Your task to perform on an android device: toggle show notifications on the lock screen Image 0: 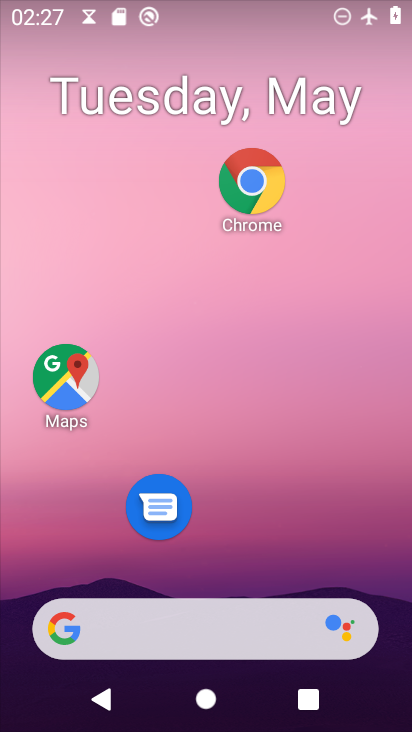
Step 0: drag from (296, 498) to (357, 141)
Your task to perform on an android device: toggle show notifications on the lock screen Image 1: 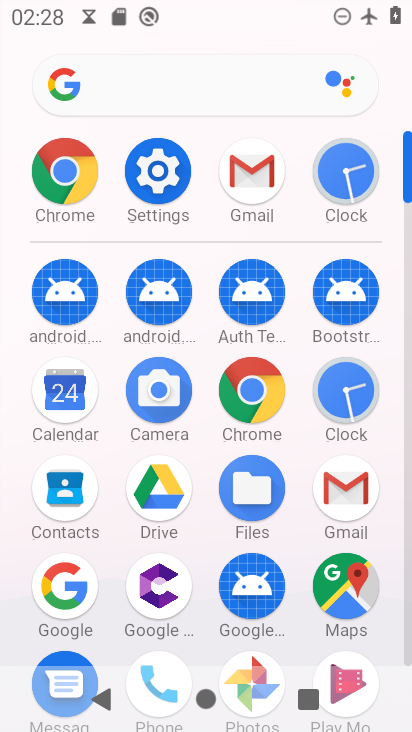
Step 1: click (248, 170)
Your task to perform on an android device: toggle show notifications on the lock screen Image 2: 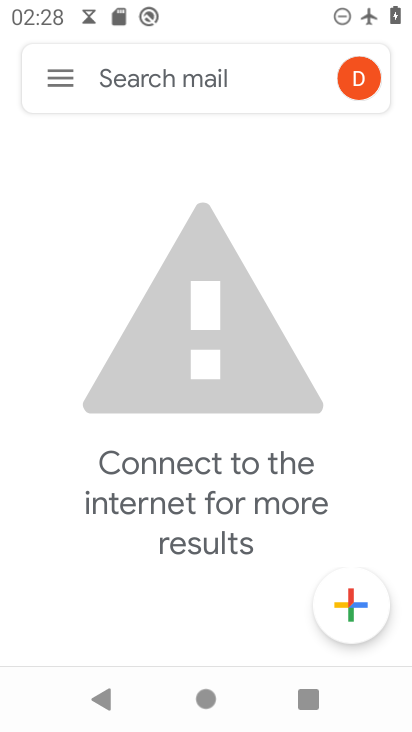
Step 2: press back button
Your task to perform on an android device: toggle show notifications on the lock screen Image 3: 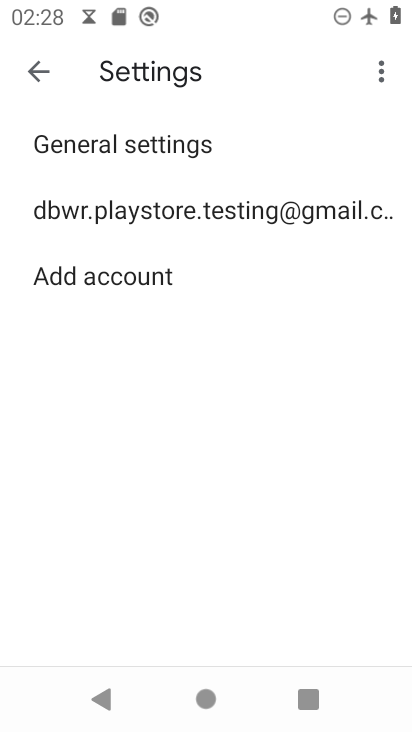
Step 3: press home button
Your task to perform on an android device: toggle show notifications on the lock screen Image 4: 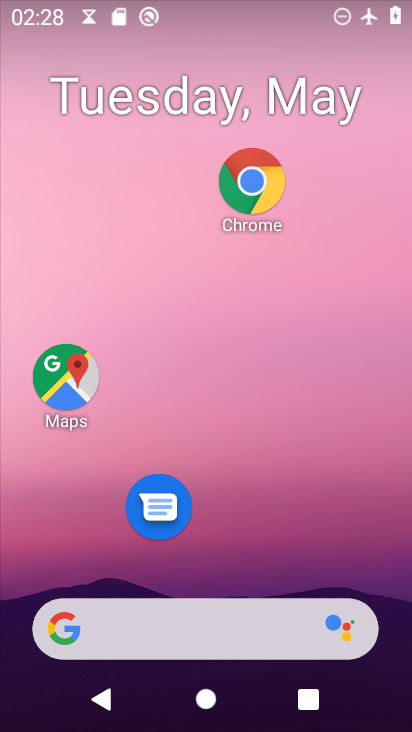
Step 4: drag from (281, 562) to (350, 214)
Your task to perform on an android device: toggle show notifications on the lock screen Image 5: 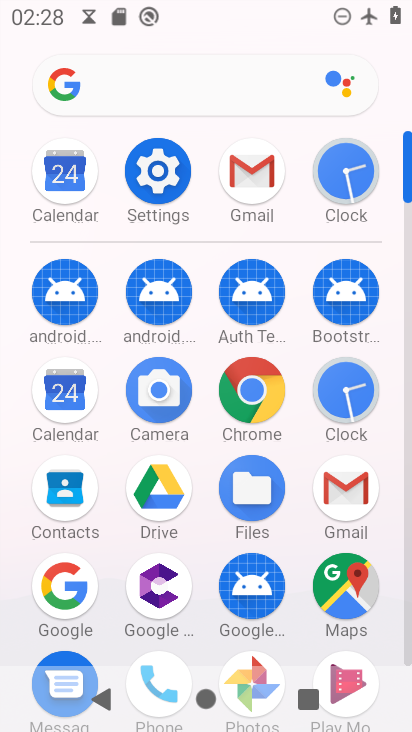
Step 5: click (245, 374)
Your task to perform on an android device: toggle show notifications on the lock screen Image 6: 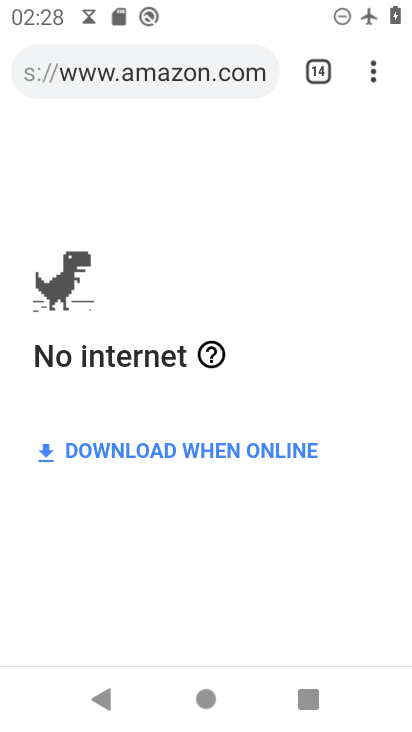
Step 6: click (388, 70)
Your task to perform on an android device: toggle show notifications on the lock screen Image 7: 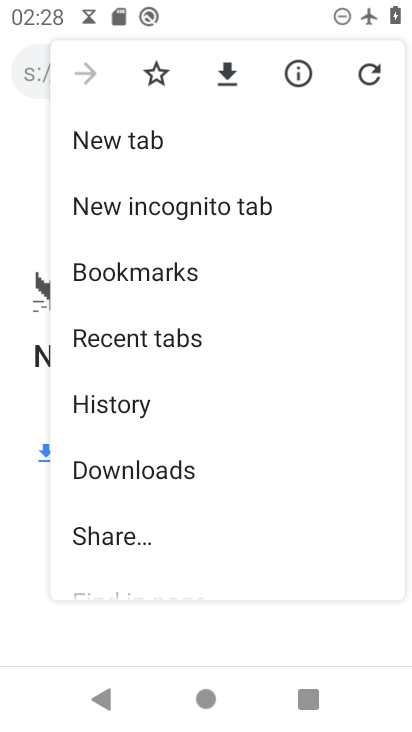
Step 7: drag from (215, 425) to (240, 298)
Your task to perform on an android device: toggle show notifications on the lock screen Image 8: 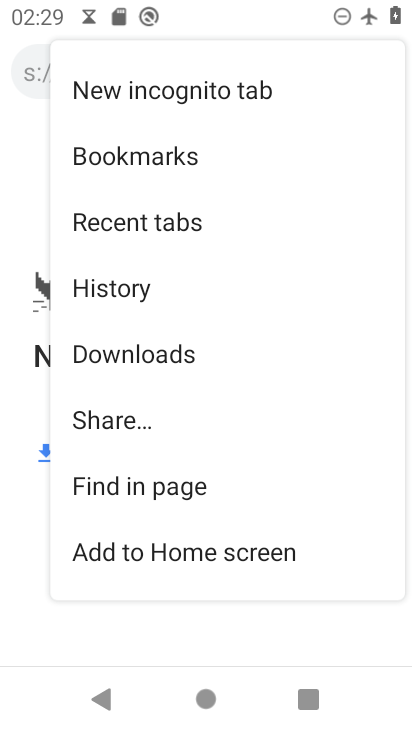
Step 8: drag from (258, 138) to (259, 233)
Your task to perform on an android device: toggle show notifications on the lock screen Image 9: 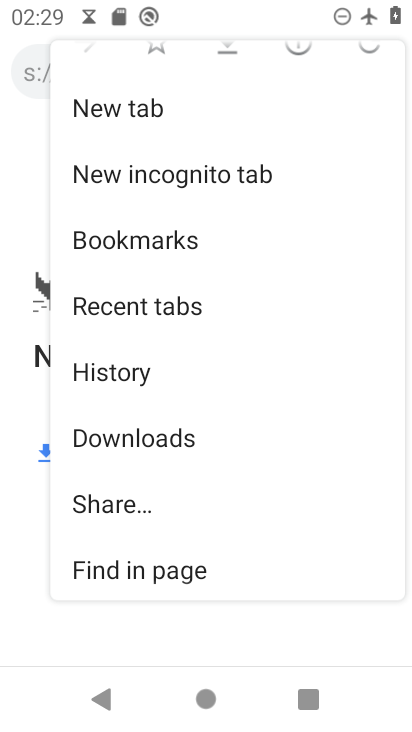
Step 9: drag from (147, 515) to (255, 170)
Your task to perform on an android device: toggle show notifications on the lock screen Image 10: 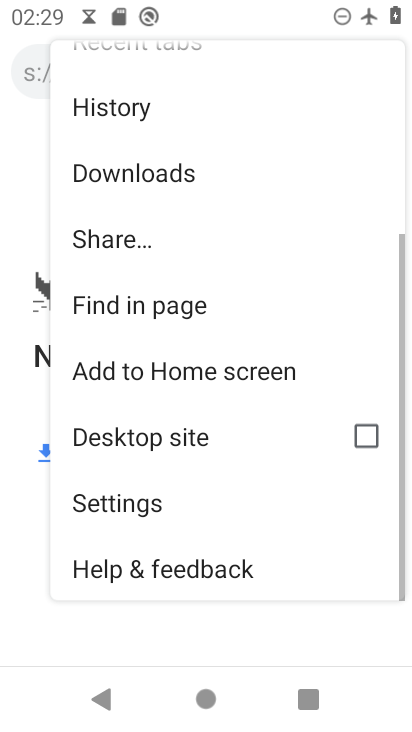
Step 10: click (151, 490)
Your task to perform on an android device: toggle show notifications on the lock screen Image 11: 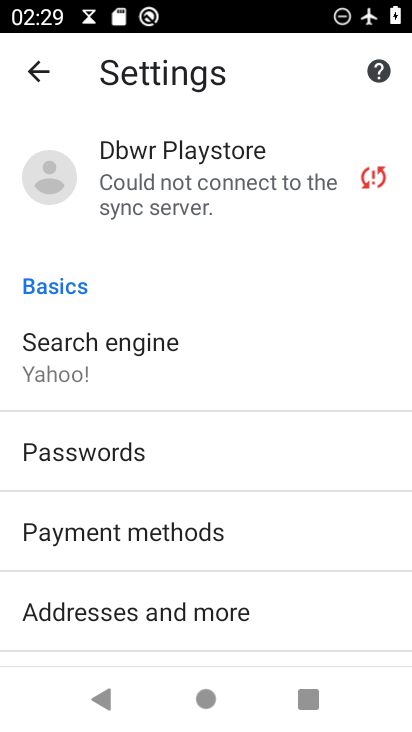
Step 11: drag from (189, 603) to (279, 292)
Your task to perform on an android device: toggle show notifications on the lock screen Image 12: 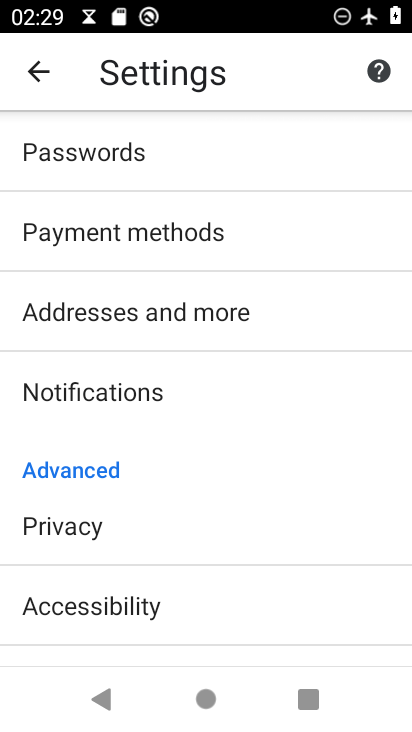
Step 12: click (153, 382)
Your task to perform on an android device: toggle show notifications on the lock screen Image 13: 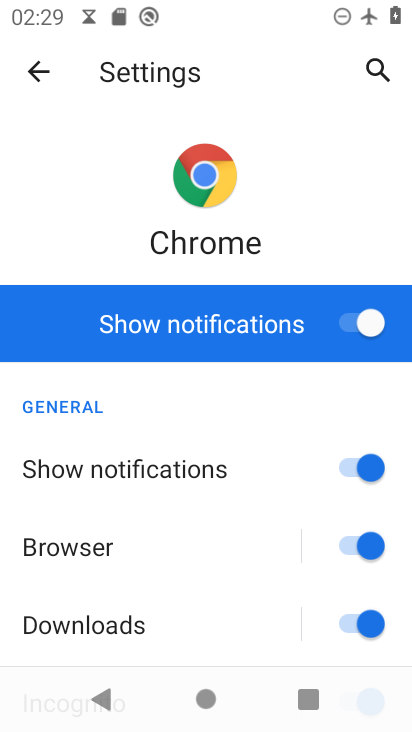
Step 13: task complete